Your task to perform on an android device: move a message to another label in the gmail app Image 0: 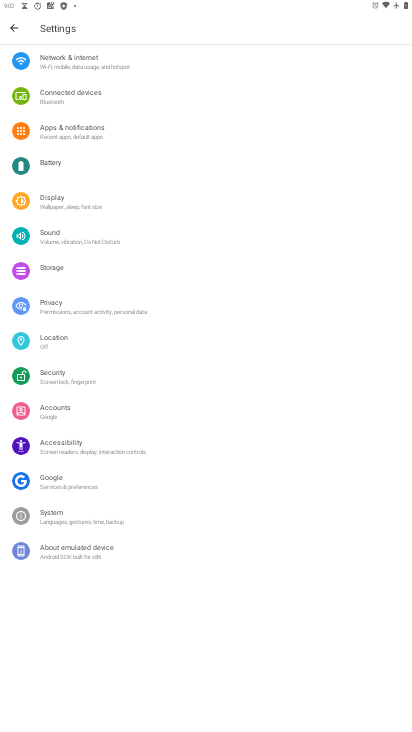
Step 0: drag from (185, 658) to (254, 65)
Your task to perform on an android device: move a message to another label in the gmail app Image 1: 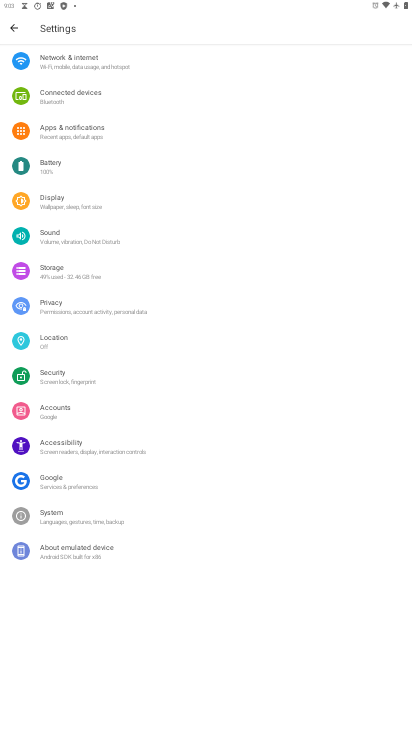
Step 1: drag from (165, 594) to (208, 21)
Your task to perform on an android device: move a message to another label in the gmail app Image 2: 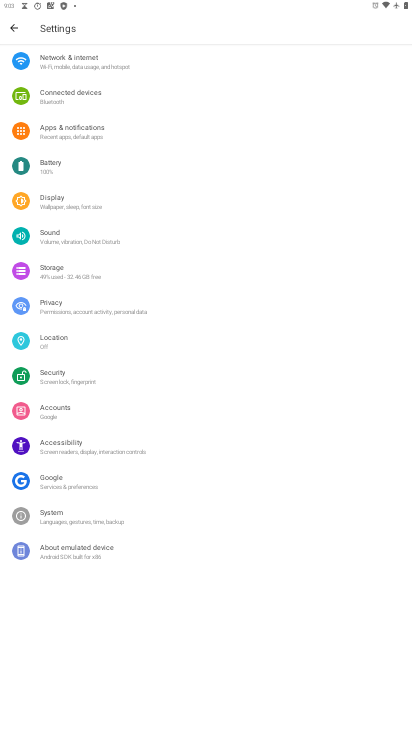
Step 2: press home button
Your task to perform on an android device: move a message to another label in the gmail app Image 3: 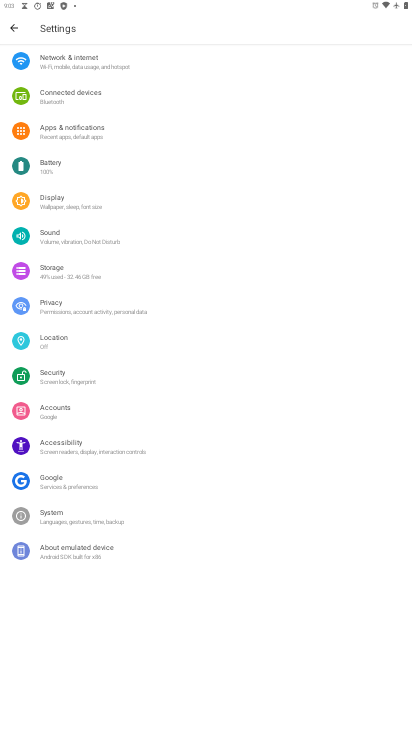
Step 3: drag from (201, 543) to (248, 156)
Your task to perform on an android device: move a message to another label in the gmail app Image 4: 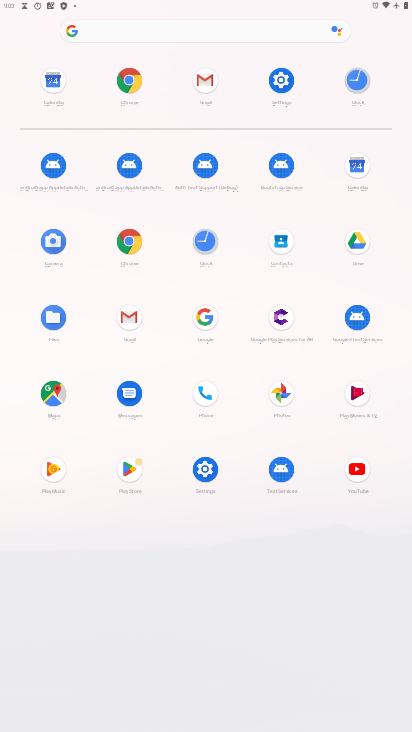
Step 4: click (209, 79)
Your task to perform on an android device: move a message to another label in the gmail app Image 5: 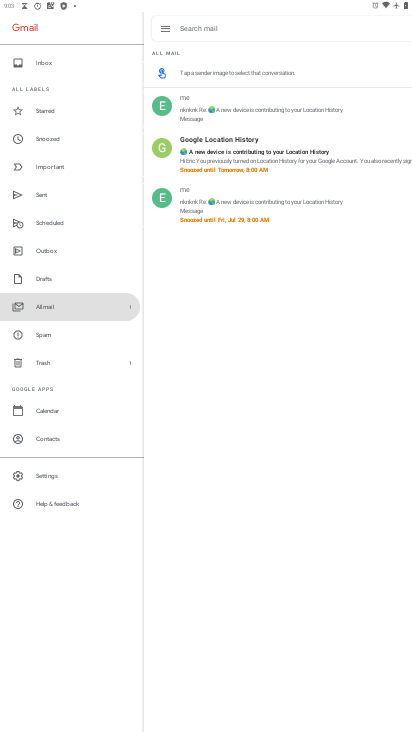
Step 5: click (67, 62)
Your task to perform on an android device: move a message to another label in the gmail app Image 6: 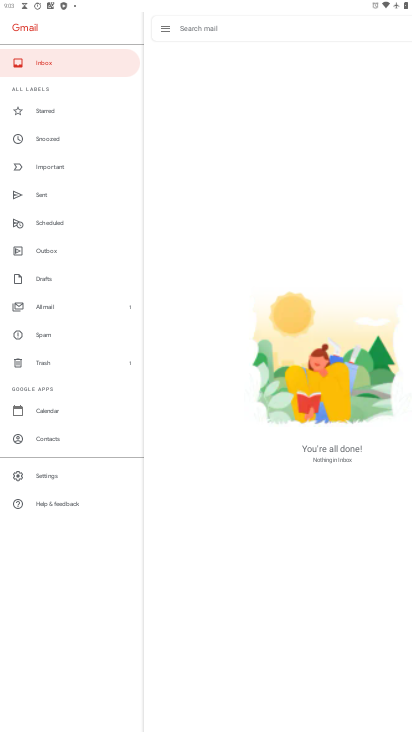
Step 6: task complete